Your task to perform on an android device: star an email in the gmail app Image 0: 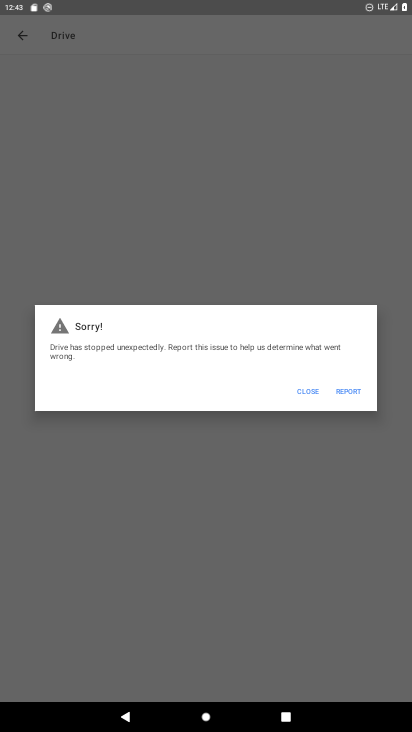
Step 0: drag from (186, 561) to (186, 154)
Your task to perform on an android device: star an email in the gmail app Image 1: 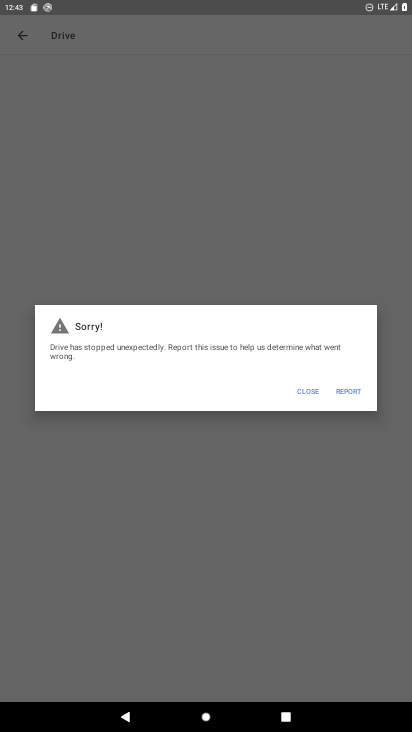
Step 1: press home button
Your task to perform on an android device: star an email in the gmail app Image 2: 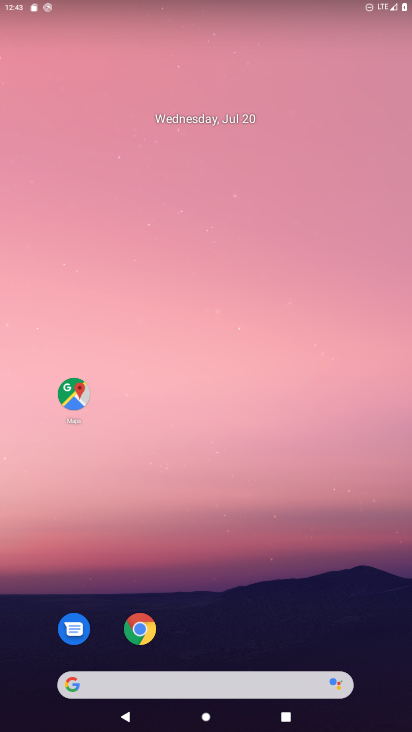
Step 2: click (180, 646)
Your task to perform on an android device: star an email in the gmail app Image 3: 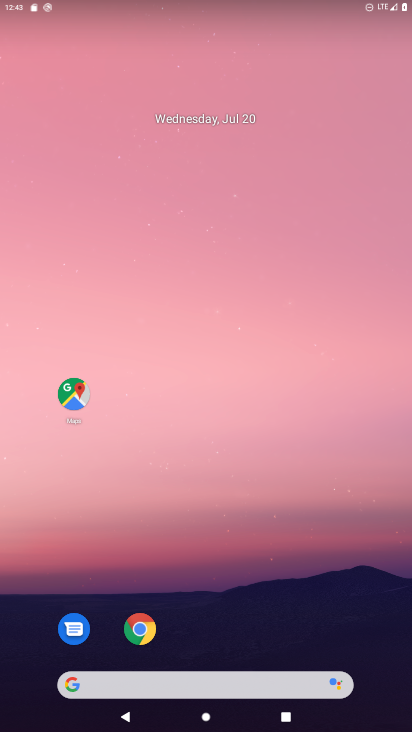
Step 3: drag from (195, 620) to (150, 149)
Your task to perform on an android device: star an email in the gmail app Image 4: 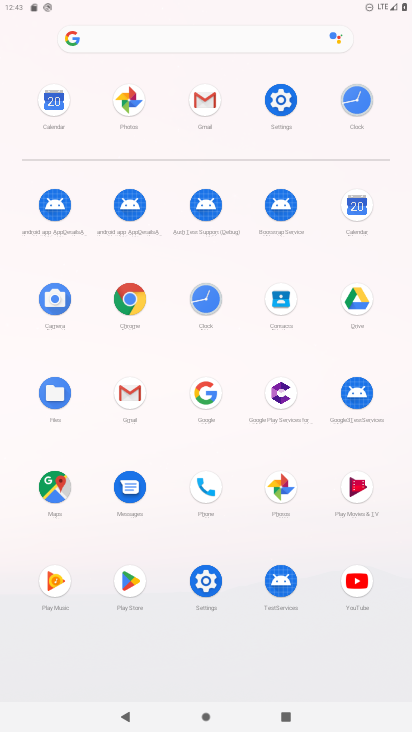
Step 4: click (202, 104)
Your task to perform on an android device: star an email in the gmail app Image 5: 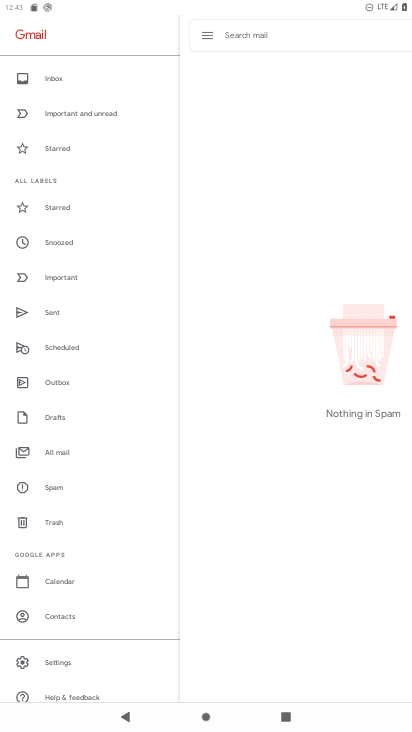
Step 5: click (65, 465)
Your task to perform on an android device: star an email in the gmail app Image 6: 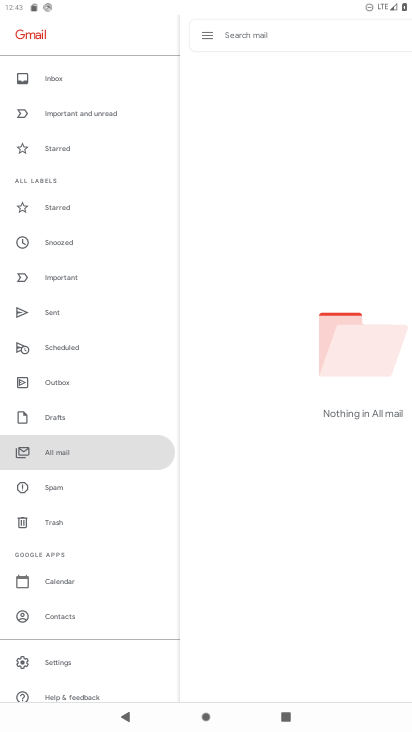
Step 6: task complete